Your task to perform on an android device: Do I have any events today? Image 0: 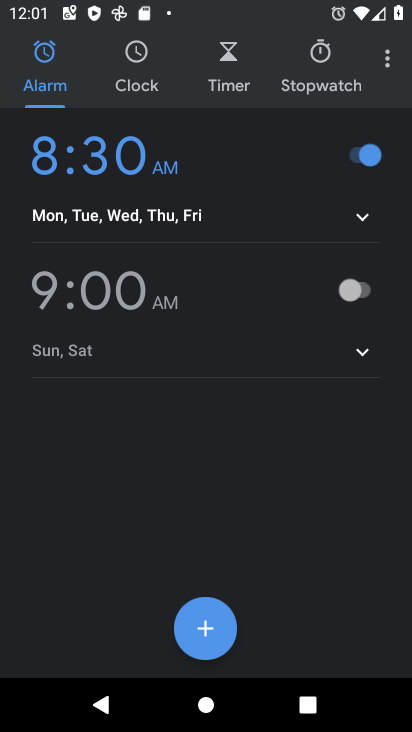
Step 0: press home button
Your task to perform on an android device: Do I have any events today? Image 1: 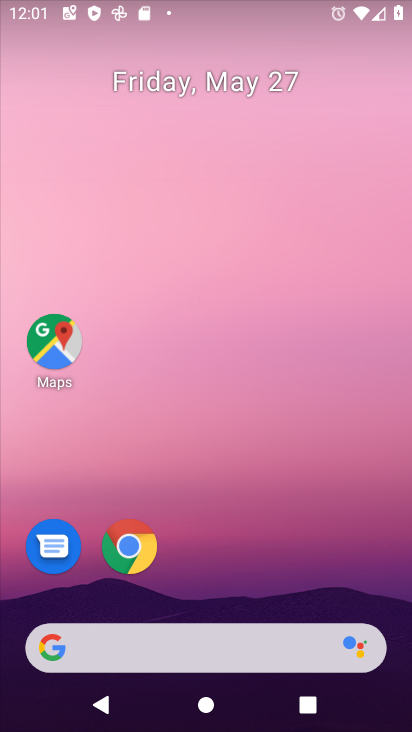
Step 1: drag from (221, 534) to (273, 36)
Your task to perform on an android device: Do I have any events today? Image 2: 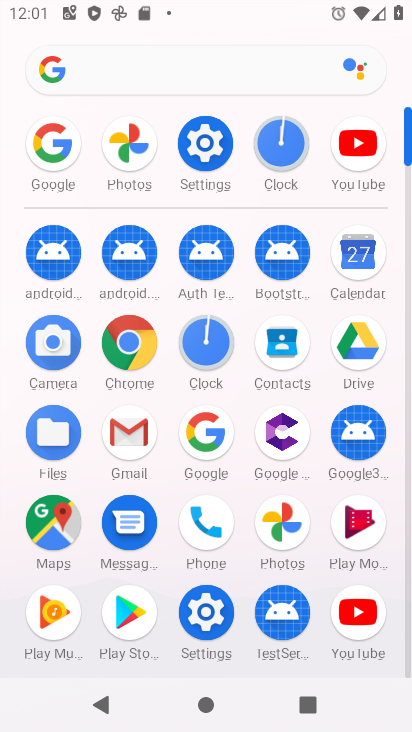
Step 2: click (345, 266)
Your task to perform on an android device: Do I have any events today? Image 3: 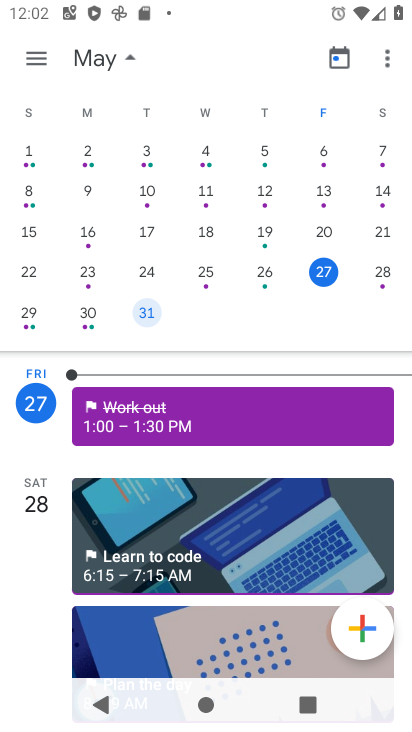
Step 3: drag from (346, 310) to (199, 311)
Your task to perform on an android device: Do I have any events today? Image 4: 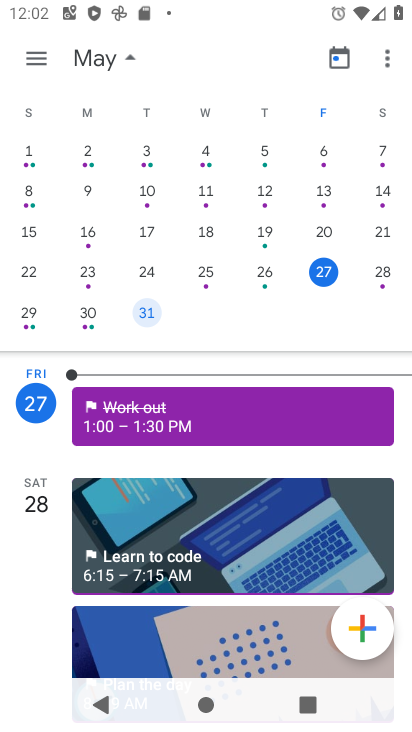
Step 4: click (332, 271)
Your task to perform on an android device: Do I have any events today? Image 5: 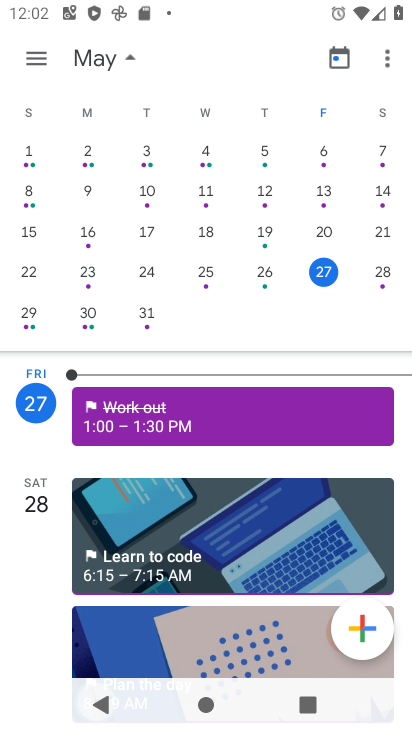
Step 5: task complete